Your task to perform on an android device: set the timer Image 0: 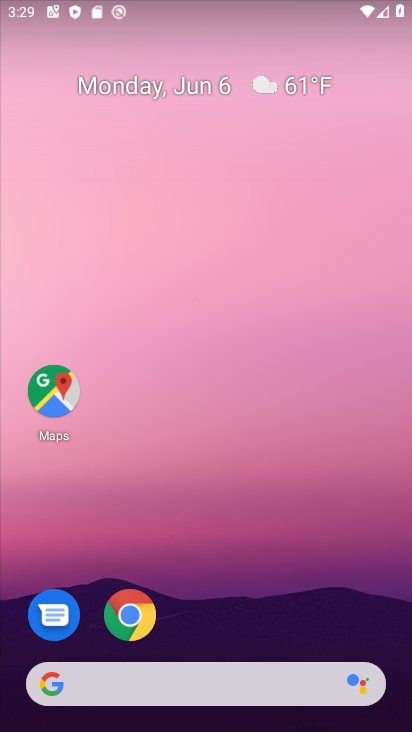
Step 0: drag from (382, 630) to (374, 27)
Your task to perform on an android device: set the timer Image 1: 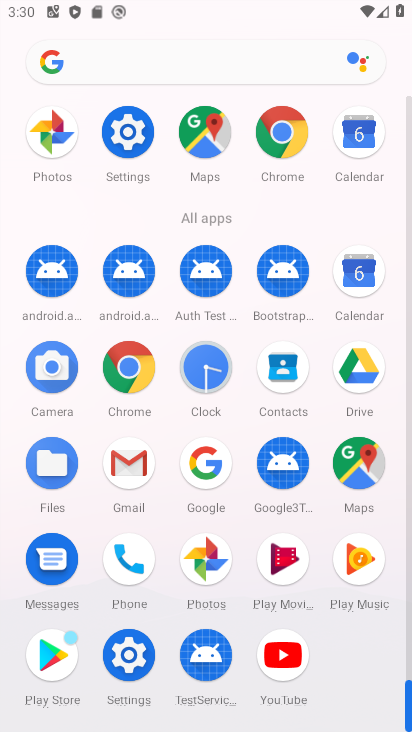
Step 1: click (204, 364)
Your task to perform on an android device: set the timer Image 2: 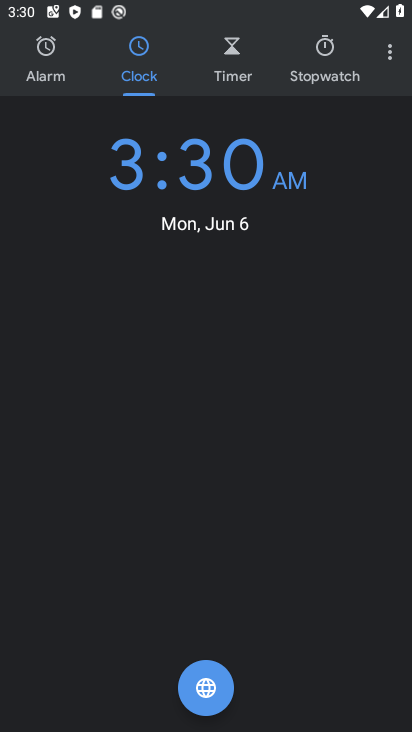
Step 2: click (233, 50)
Your task to perform on an android device: set the timer Image 3: 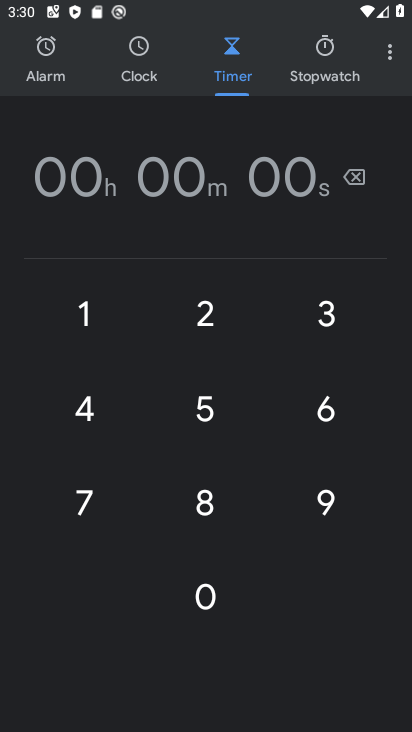
Step 3: click (88, 313)
Your task to perform on an android device: set the timer Image 4: 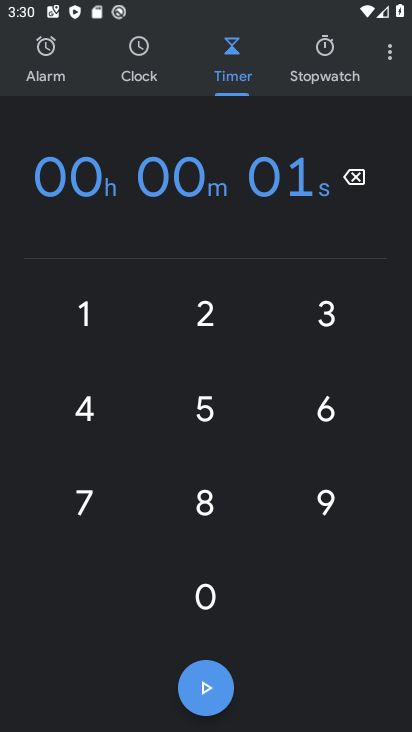
Step 4: click (334, 313)
Your task to perform on an android device: set the timer Image 5: 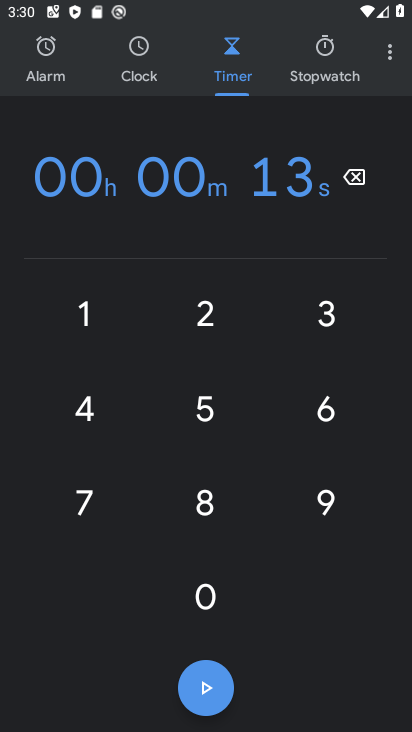
Step 5: click (213, 606)
Your task to perform on an android device: set the timer Image 6: 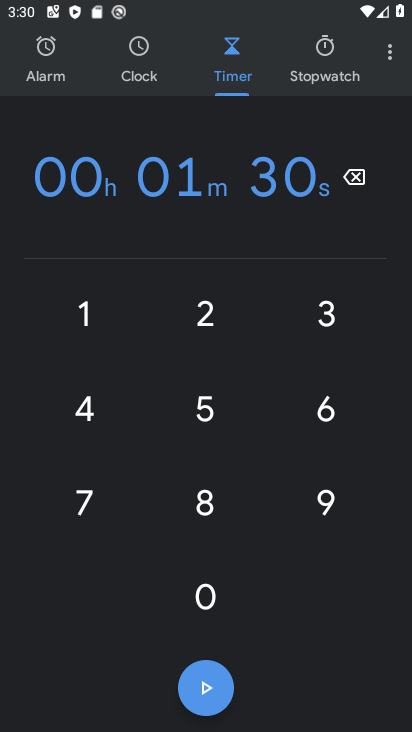
Step 6: click (213, 606)
Your task to perform on an android device: set the timer Image 7: 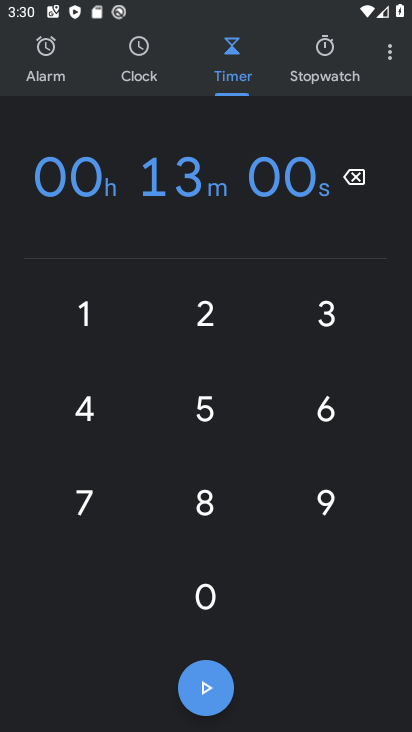
Step 7: click (213, 606)
Your task to perform on an android device: set the timer Image 8: 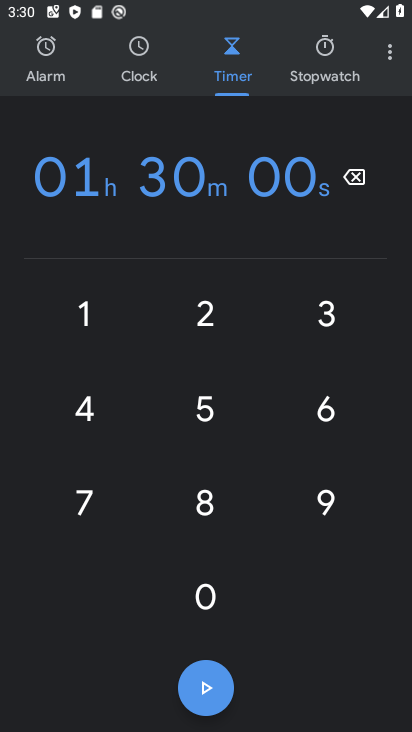
Step 8: task complete